Your task to perform on an android device: Show me popular videos on Youtube Image 0: 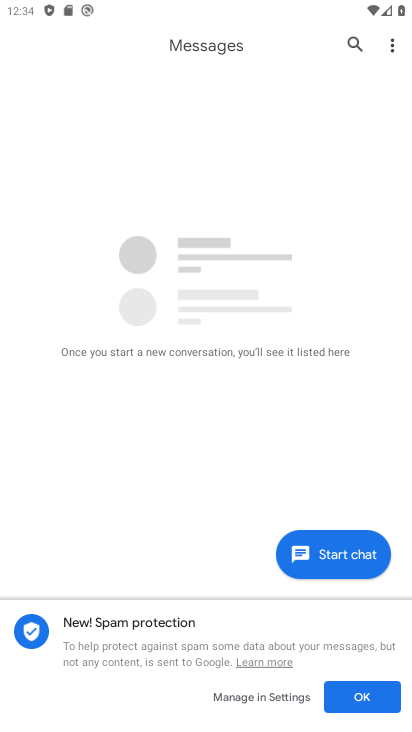
Step 0: press home button
Your task to perform on an android device: Show me popular videos on Youtube Image 1: 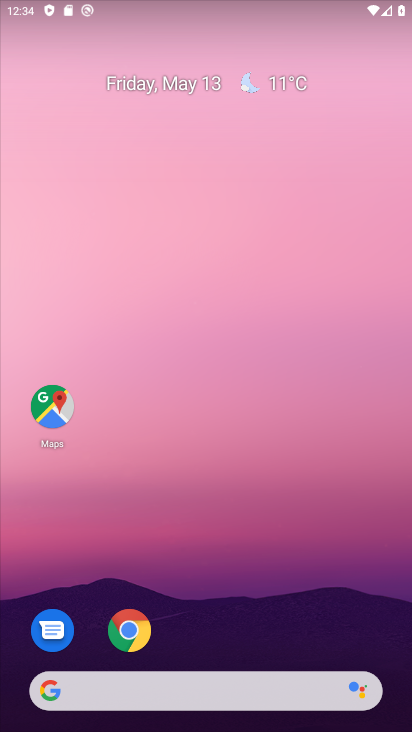
Step 1: drag from (256, 617) to (263, 0)
Your task to perform on an android device: Show me popular videos on Youtube Image 2: 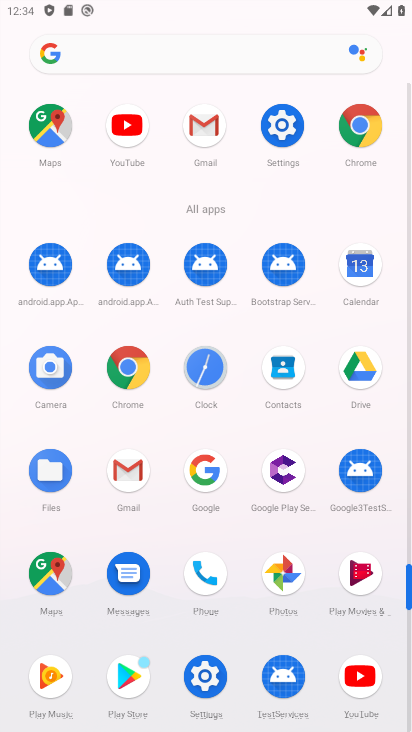
Step 2: click (359, 680)
Your task to perform on an android device: Show me popular videos on Youtube Image 3: 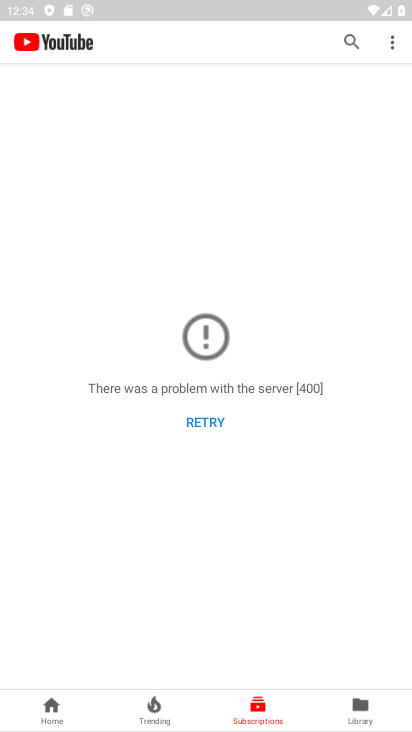
Step 3: click (60, 721)
Your task to perform on an android device: Show me popular videos on Youtube Image 4: 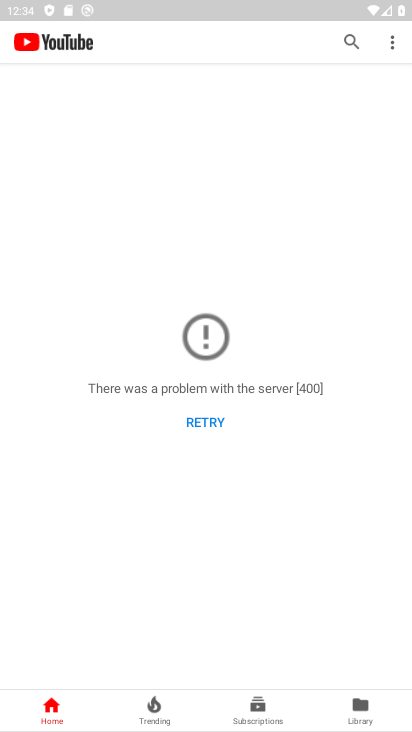
Step 4: click (208, 415)
Your task to perform on an android device: Show me popular videos on Youtube Image 5: 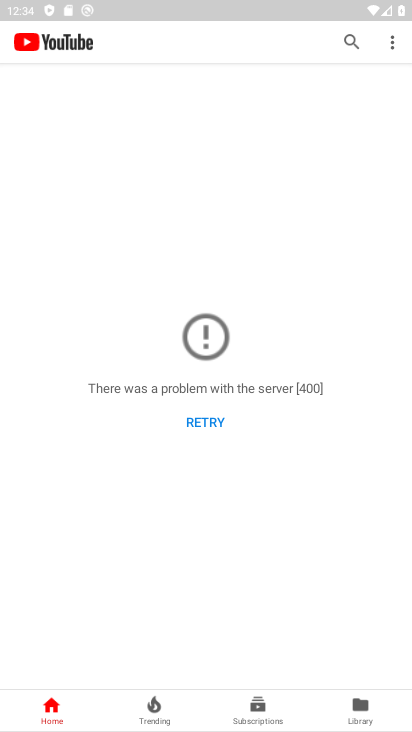
Step 5: task complete